Your task to perform on an android device: Check the weather Image 0: 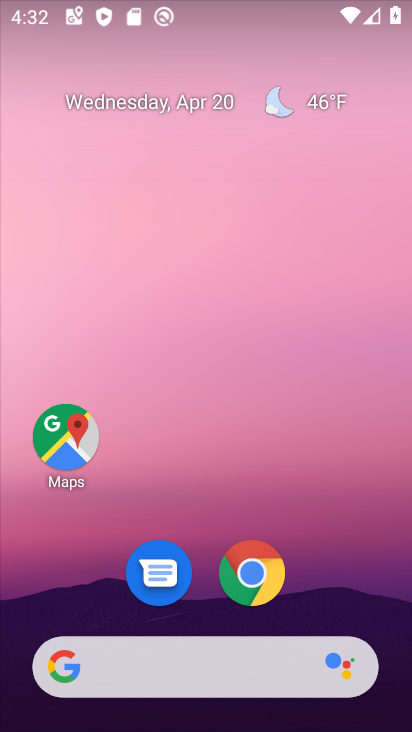
Step 0: click (383, 178)
Your task to perform on an android device: Check the weather Image 1: 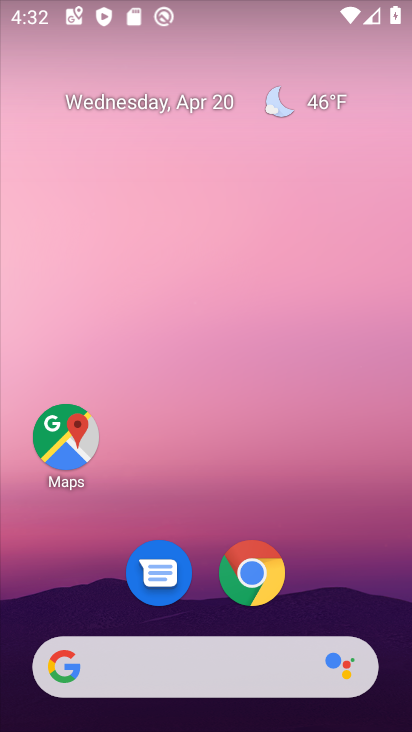
Step 1: click (318, 95)
Your task to perform on an android device: Check the weather Image 2: 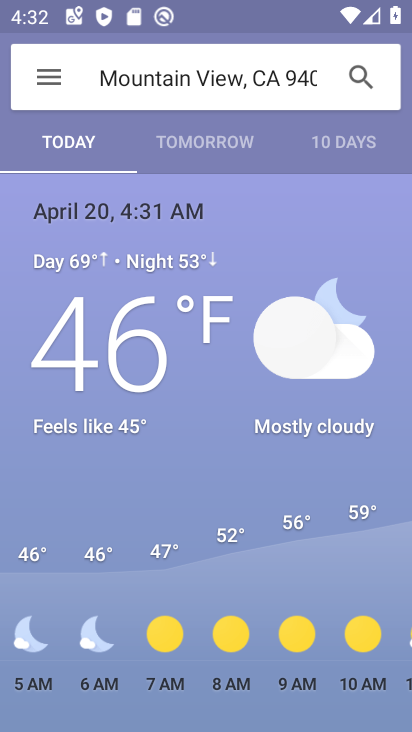
Step 2: task complete